Your task to perform on an android device: Go to Reddit.com Image 0: 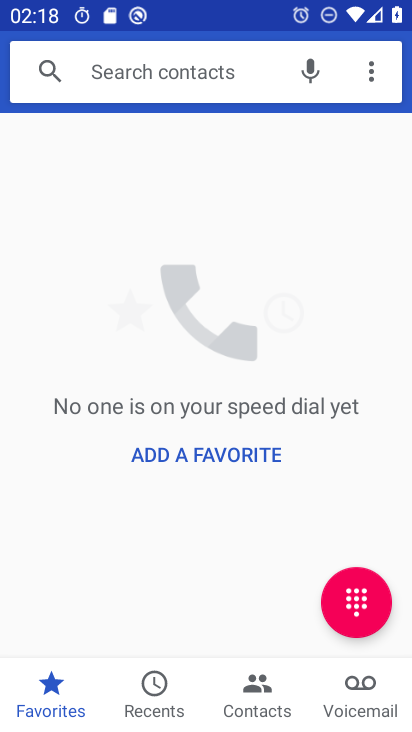
Step 0: press home button
Your task to perform on an android device: Go to Reddit.com Image 1: 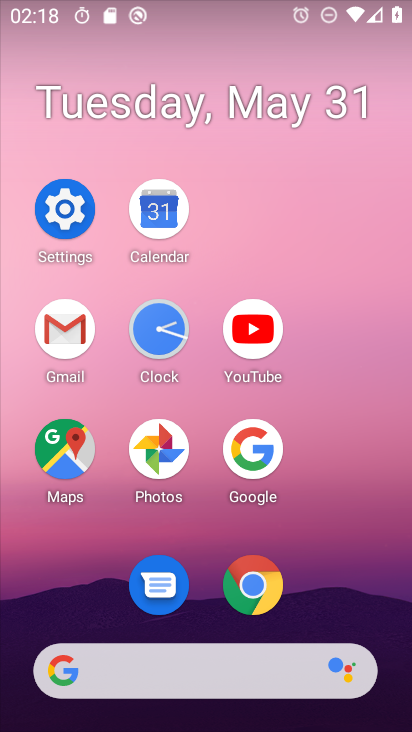
Step 1: click (238, 600)
Your task to perform on an android device: Go to Reddit.com Image 2: 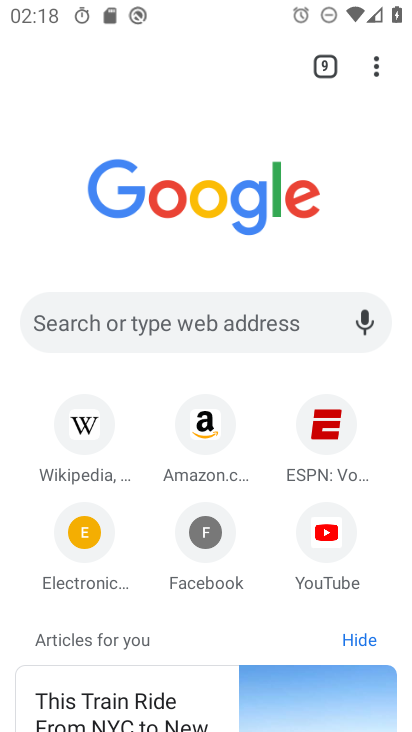
Step 2: click (326, 69)
Your task to perform on an android device: Go to Reddit.com Image 3: 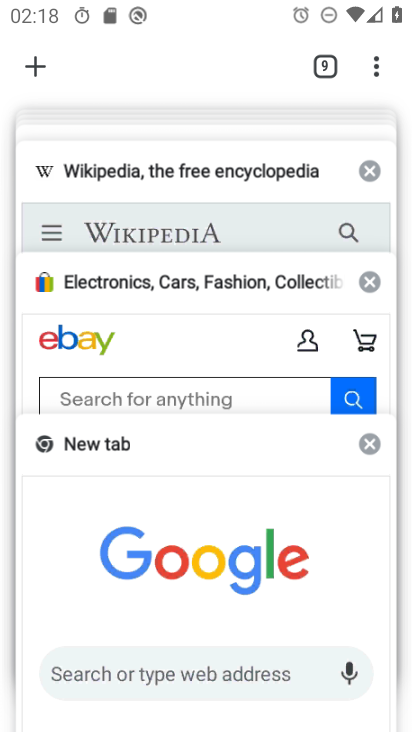
Step 3: drag from (186, 259) to (160, 636)
Your task to perform on an android device: Go to Reddit.com Image 4: 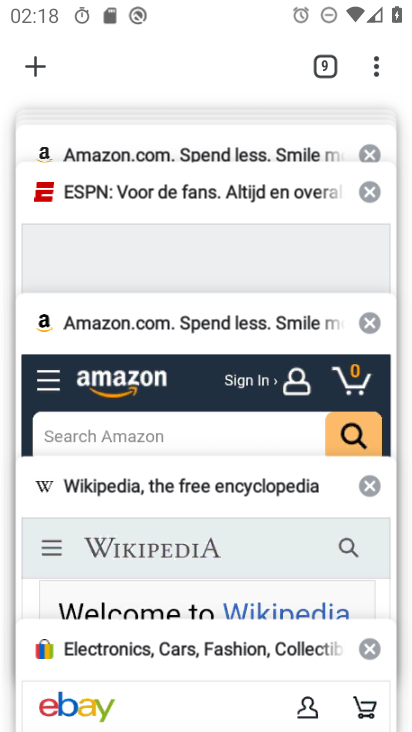
Step 4: drag from (167, 204) to (140, 610)
Your task to perform on an android device: Go to Reddit.com Image 5: 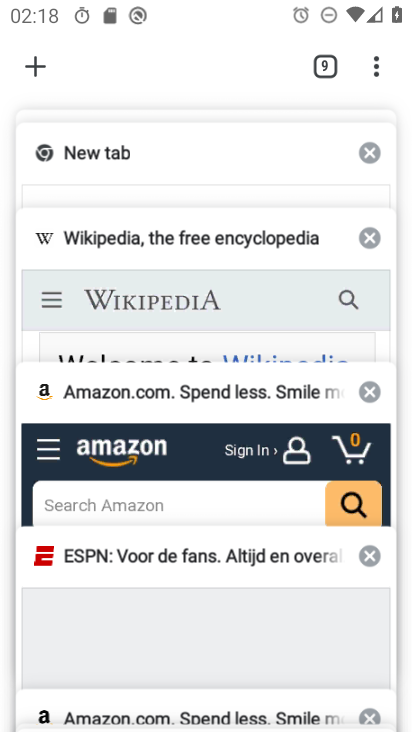
Step 5: drag from (208, 170) to (203, 627)
Your task to perform on an android device: Go to Reddit.com Image 6: 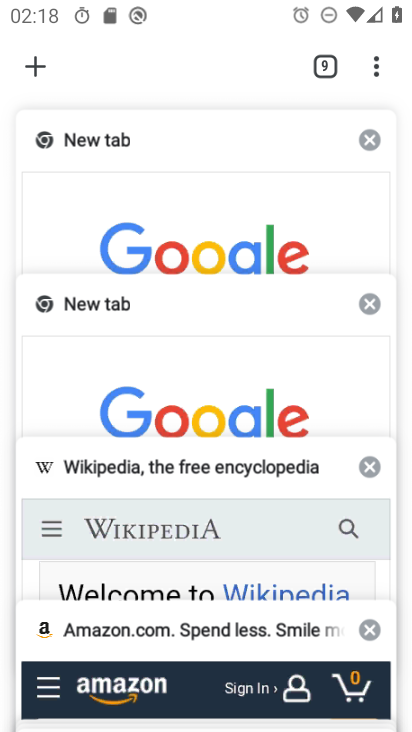
Step 6: click (89, 165)
Your task to perform on an android device: Go to Reddit.com Image 7: 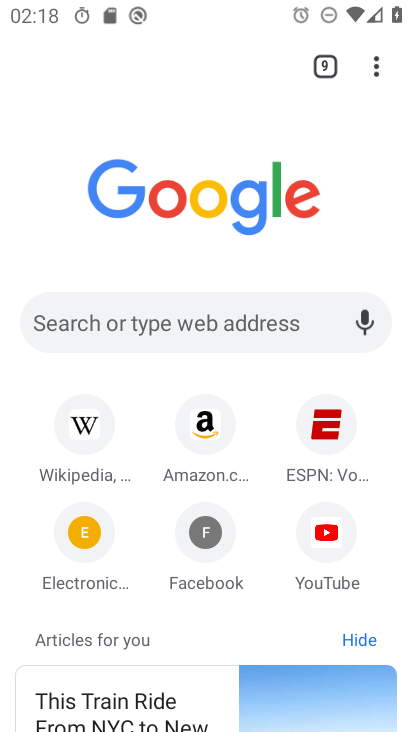
Step 7: click (198, 323)
Your task to perform on an android device: Go to Reddit.com Image 8: 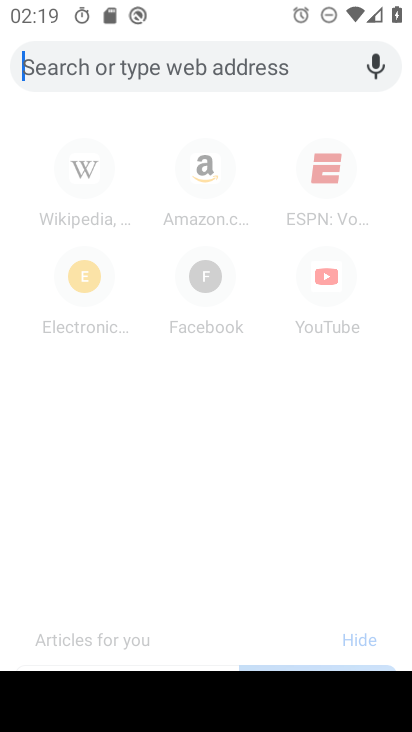
Step 8: type "reddit"
Your task to perform on an android device: Go to Reddit.com Image 9: 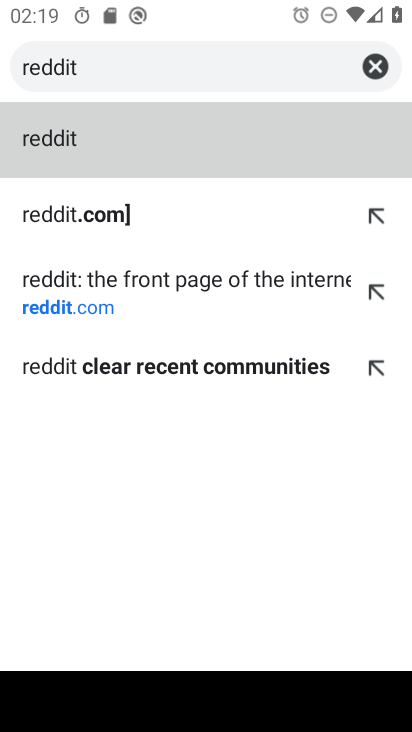
Step 9: click (151, 266)
Your task to perform on an android device: Go to Reddit.com Image 10: 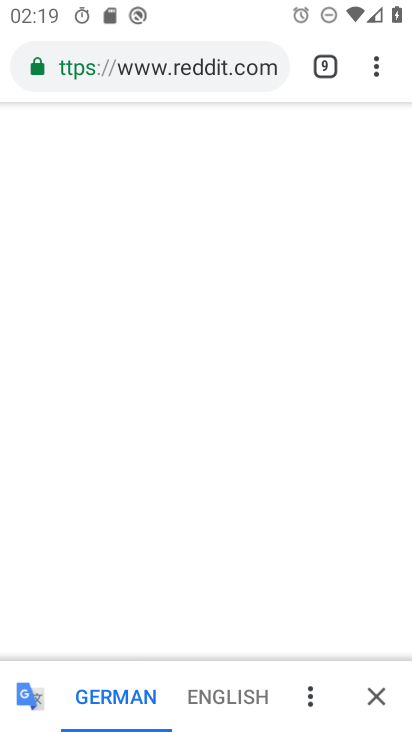
Step 10: task complete